Your task to perform on an android device: What's the weather going to be tomorrow? Image 0: 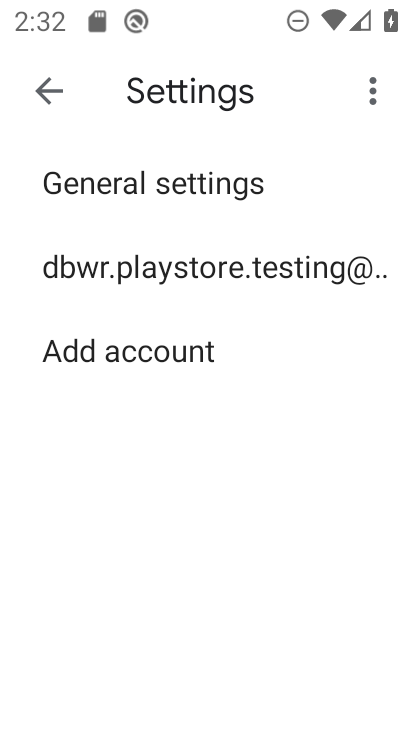
Step 0: press home button
Your task to perform on an android device: What's the weather going to be tomorrow? Image 1: 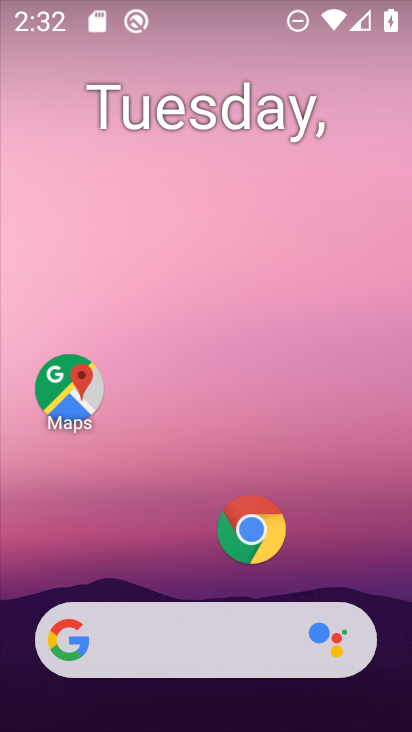
Step 1: click (194, 652)
Your task to perform on an android device: What's the weather going to be tomorrow? Image 2: 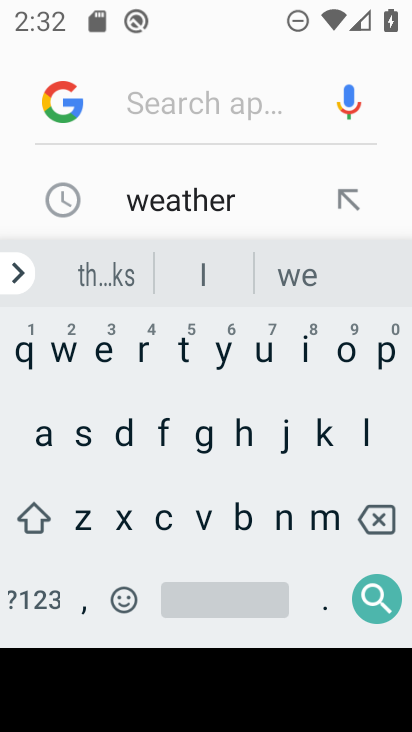
Step 2: click (191, 209)
Your task to perform on an android device: What's the weather going to be tomorrow? Image 3: 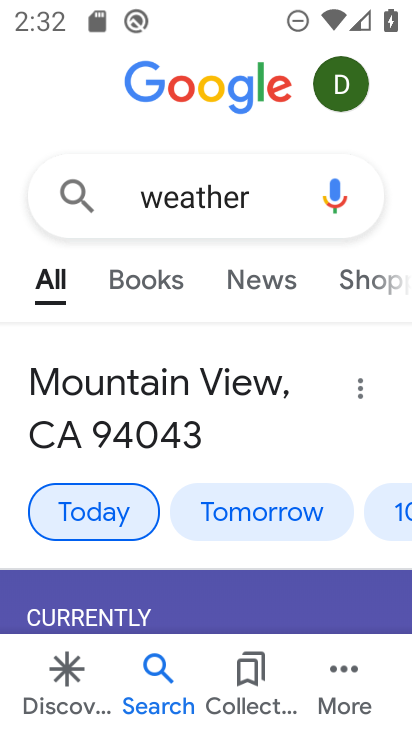
Step 3: click (260, 504)
Your task to perform on an android device: What's the weather going to be tomorrow? Image 4: 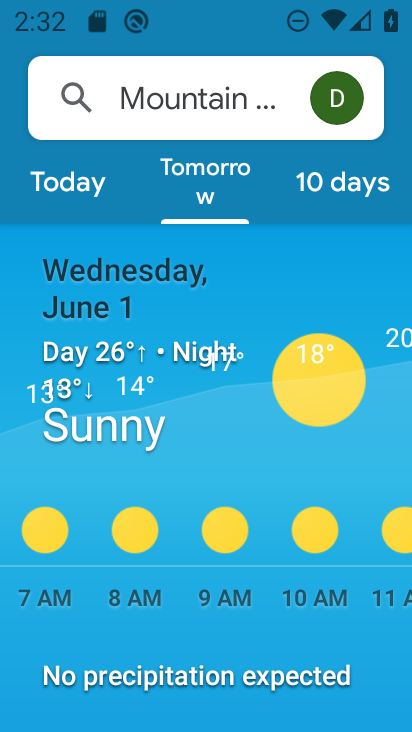
Step 4: task complete